Your task to perform on an android device: When is my next appointment? Image 0: 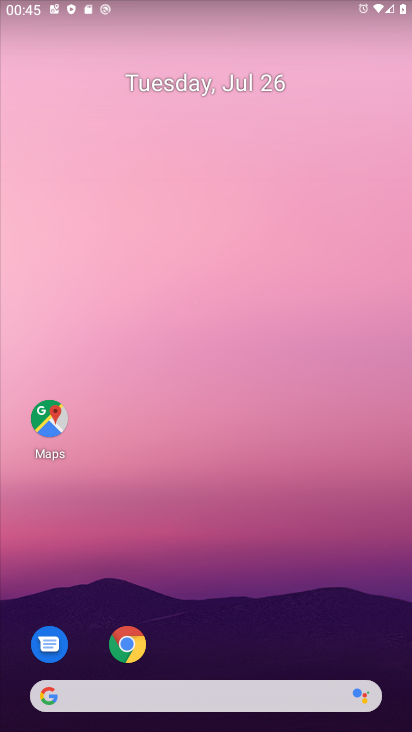
Step 0: drag from (240, 639) to (232, 210)
Your task to perform on an android device: When is my next appointment? Image 1: 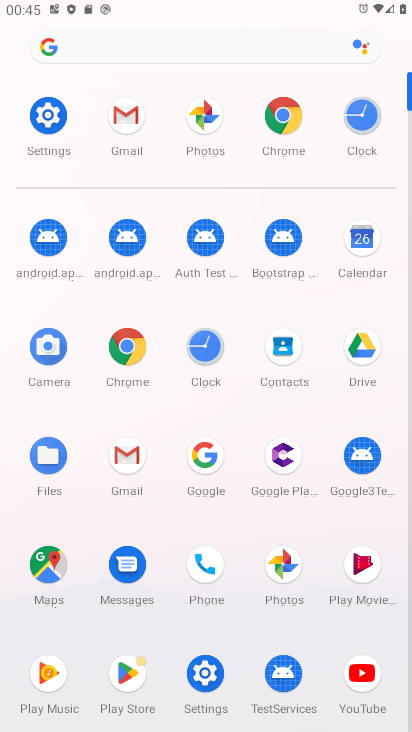
Step 1: click (362, 232)
Your task to perform on an android device: When is my next appointment? Image 2: 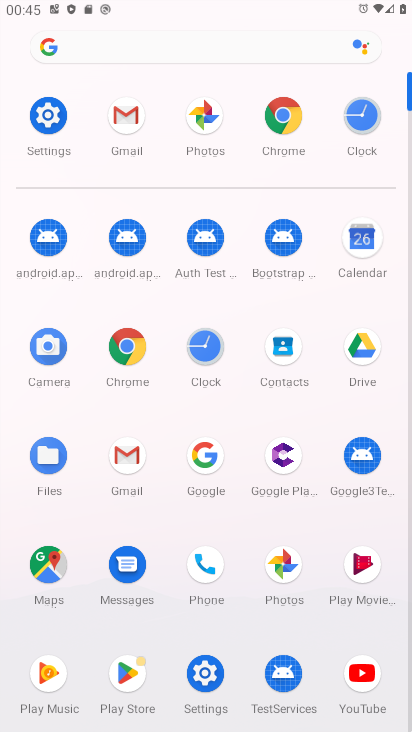
Step 2: click (362, 232)
Your task to perform on an android device: When is my next appointment? Image 3: 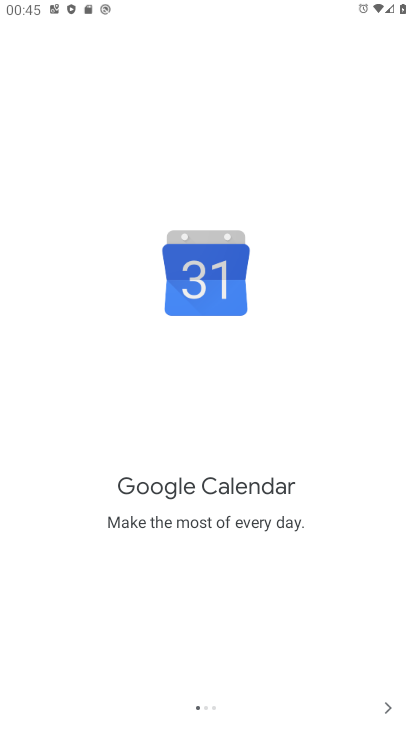
Step 3: click (393, 704)
Your task to perform on an android device: When is my next appointment? Image 4: 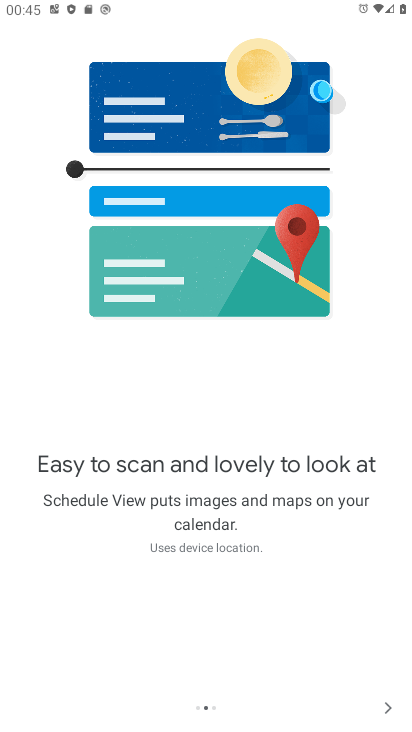
Step 4: click (391, 713)
Your task to perform on an android device: When is my next appointment? Image 5: 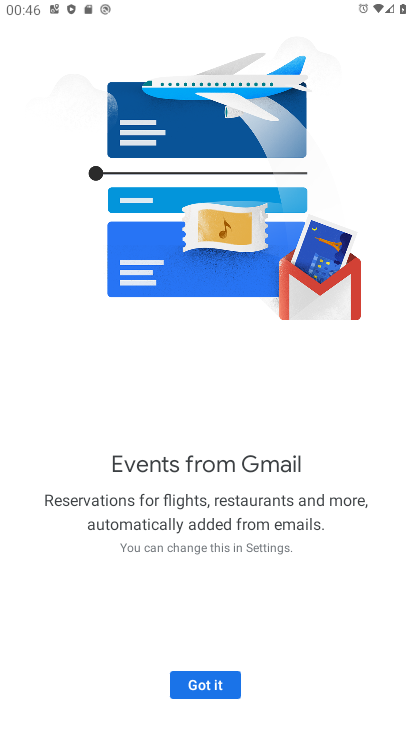
Step 5: click (219, 682)
Your task to perform on an android device: When is my next appointment? Image 6: 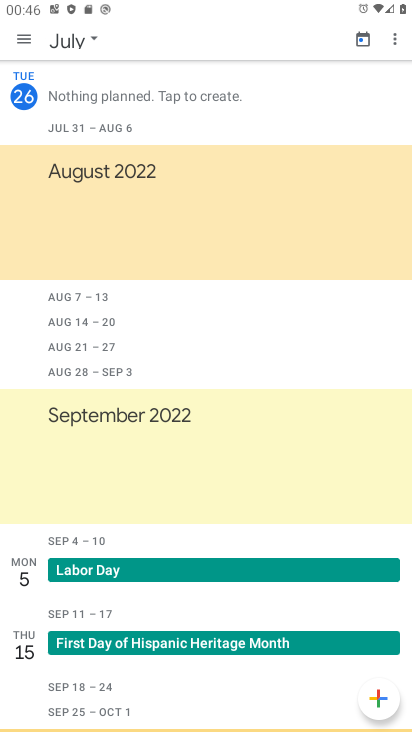
Step 6: click (27, 34)
Your task to perform on an android device: When is my next appointment? Image 7: 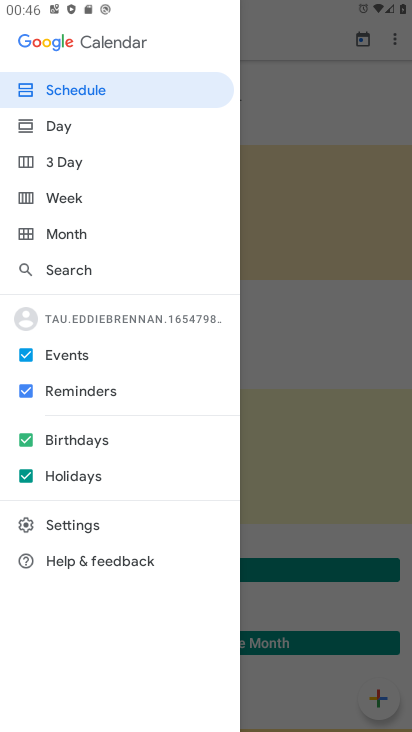
Step 7: click (294, 170)
Your task to perform on an android device: When is my next appointment? Image 8: 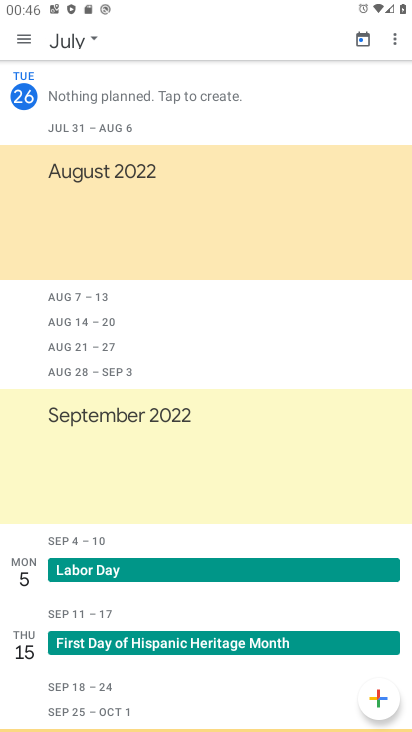
Step 8: click (21, 37)
Your task to perform on an android device: When is my next appointment? Image 9: 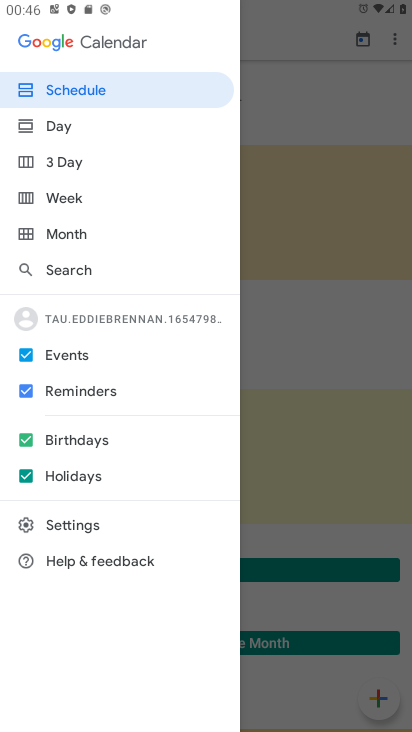
Step 9: click (71, 237)
Your task to perform on an android device: When is my next appointment? Image 10: 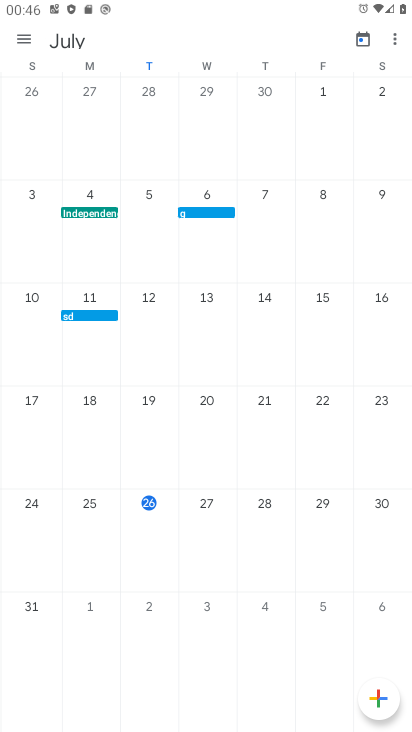
Step 10: click (206, 505)
Your task to perform on an android device: When is my next appointment? Image 11: 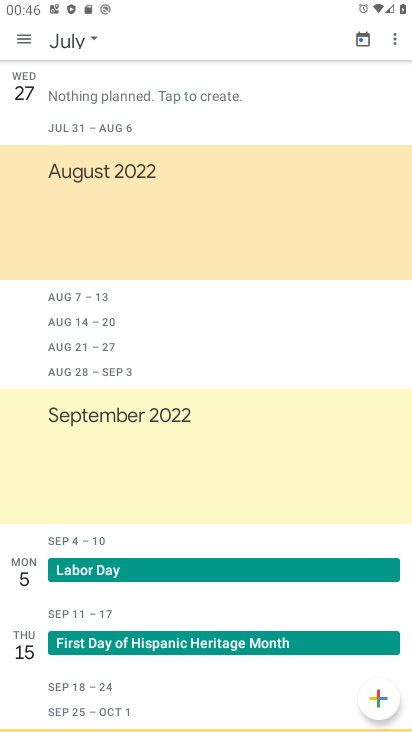
Step 11: task complete